Your task to perform on an android device: see creations saved in the google photos Image 0: 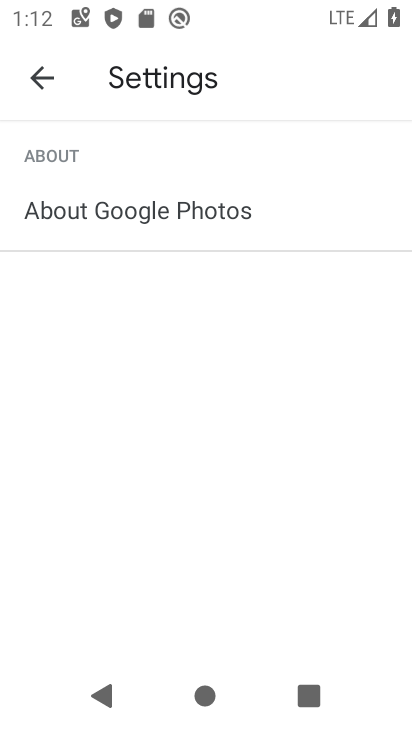
Step 0: press home button
Your task to perform on an android device: see creations saved in the google photos Image 1: 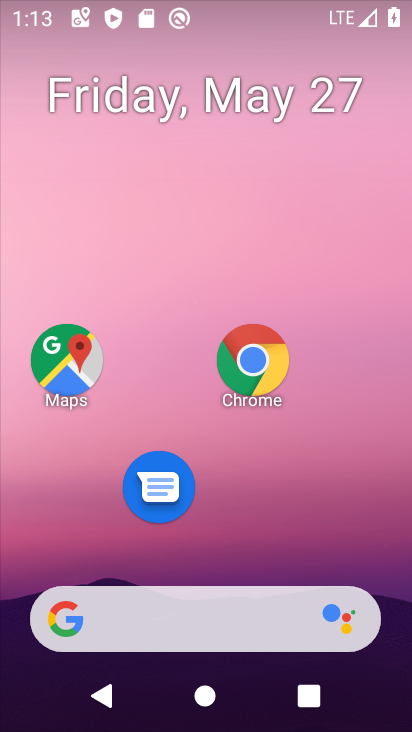
Step 1: drag from (244, 486) to (278, 90)
Your task to perform on an android device: see creations saved in the google photos Image 2: 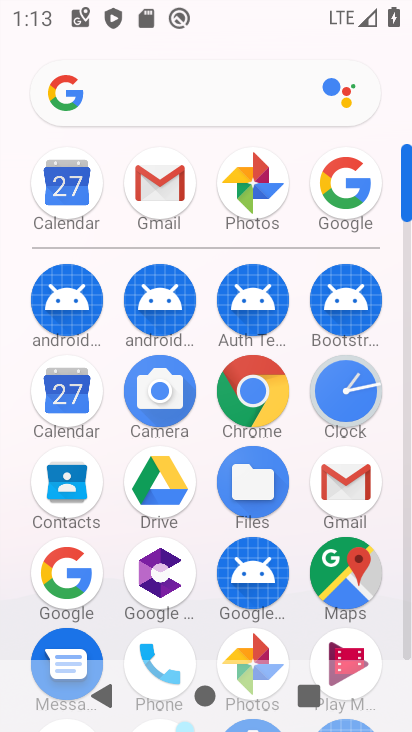
Step 2: click (253, 184)
Your task to perform on an android device: see creations saved in the google photos Image 3: 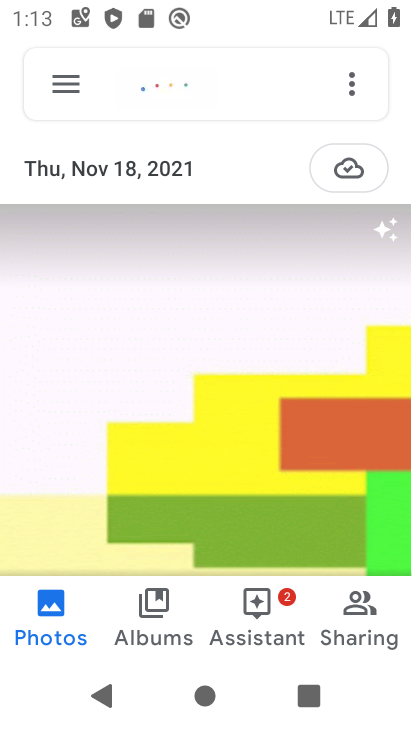
Step 3: click (174, 92)
Your task to perform on an android device: see creations saved in the google photos Image 4: 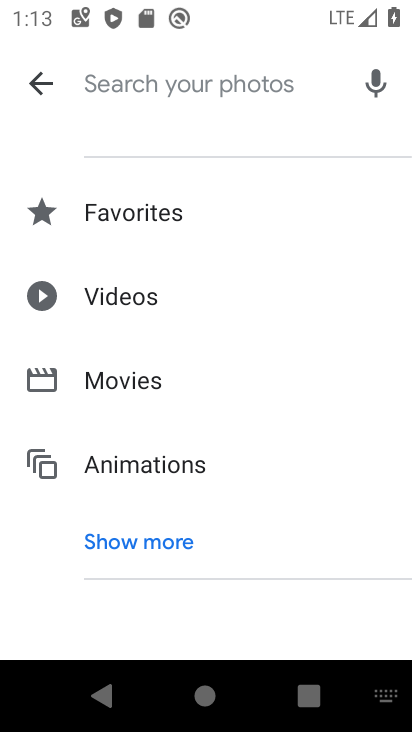
Step 4: click (135, 545)
Your task to perform on an android device: see creations saved in the google photos Image 5: 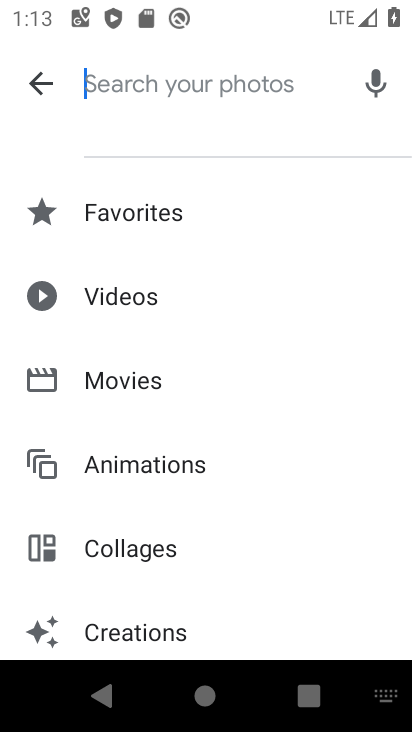
Step 5: drag from (206, 586) to (216, 89)
Your task to perform on an android device: see creations saved in the google photos Image 6: 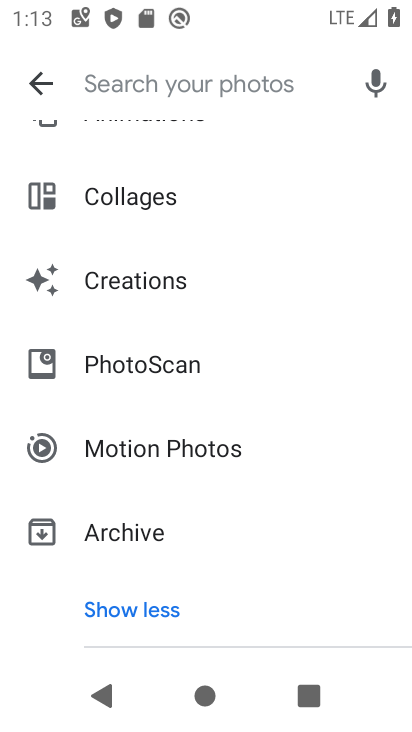
Step 6: click (138, 284)
Your task to perform on an android device: see creations saved in the google photos Image 7: 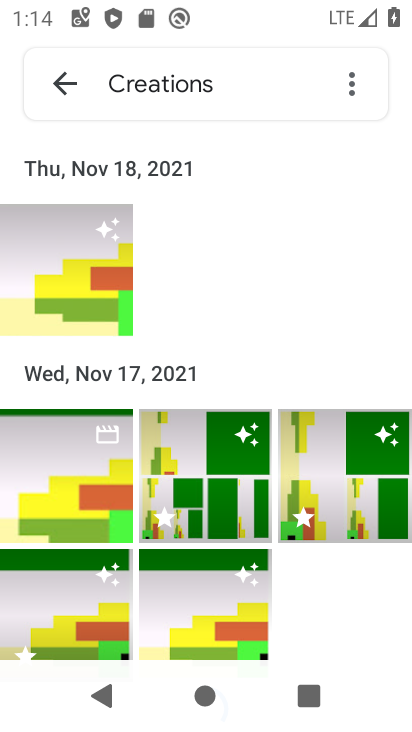
Step 7: task complete